Your task to perform on an android device: Open the music app Image 0: 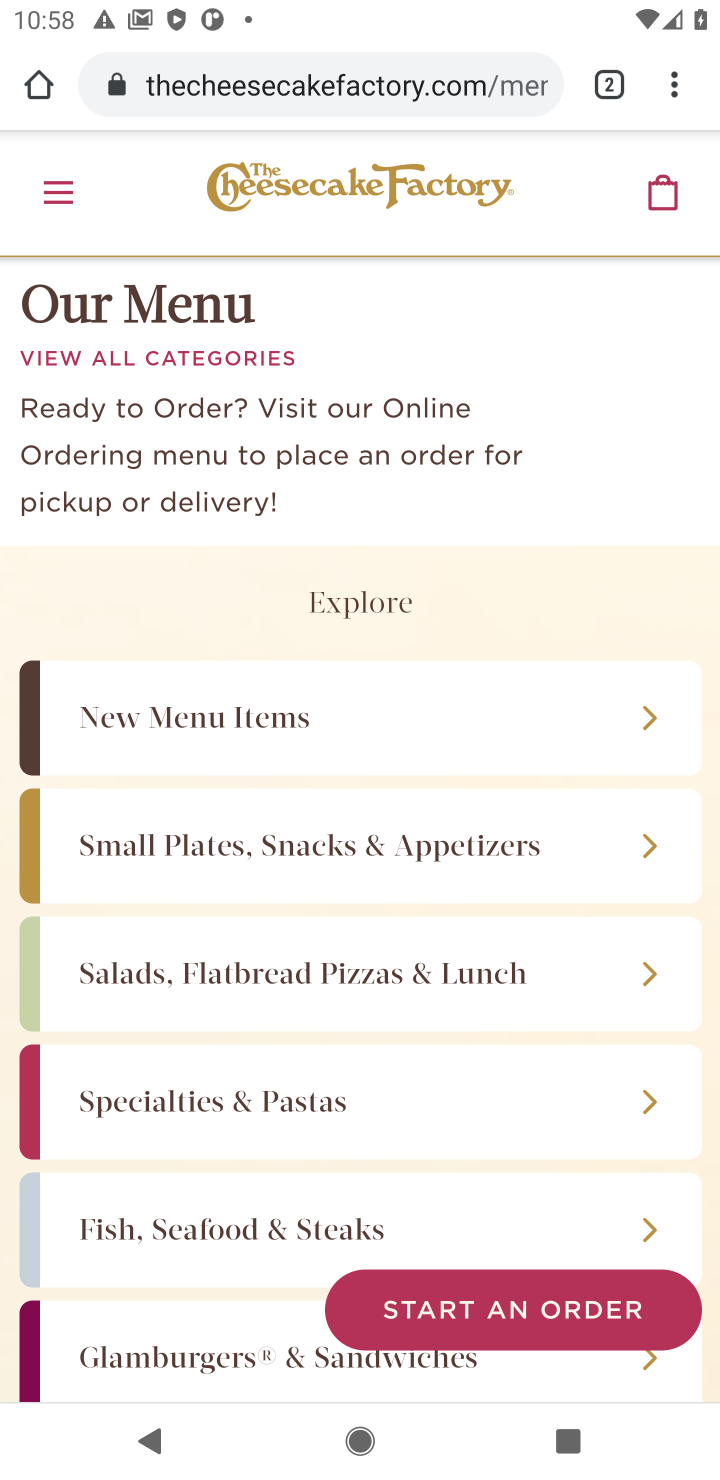
Step 0: press home button
Your task to perform on an android device: Open the music app Image 1: 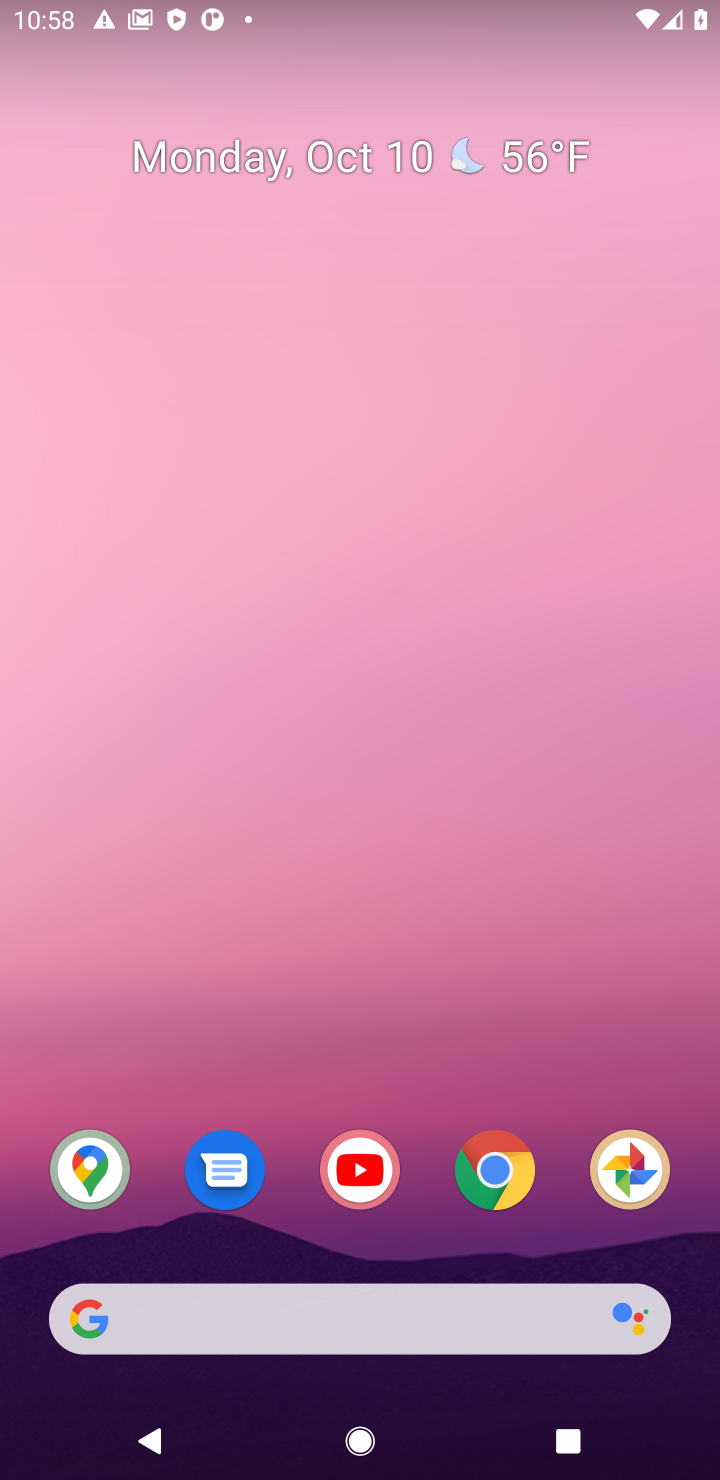
Step 1: task complete